Your task to perform on an android device: Show the shopping cart on bestbuy. Add macbook air to the cart on bestbuy Image 0: 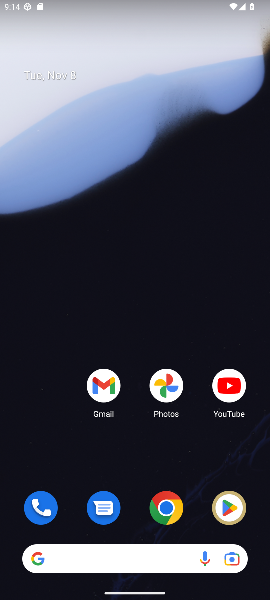
Step 0: click (163, 508)
Your task to perform on an android device: Show the shopping cart on bestbuy. Add macbook air to the cart on bestbuy Image 1: 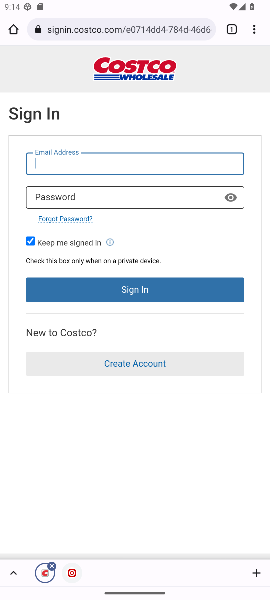
Step 1: click (105, 26)
Your task to perform on an android device: Show the shopping cart on bestbuy. Add macbook air to the cart on bestbuy Image 2: 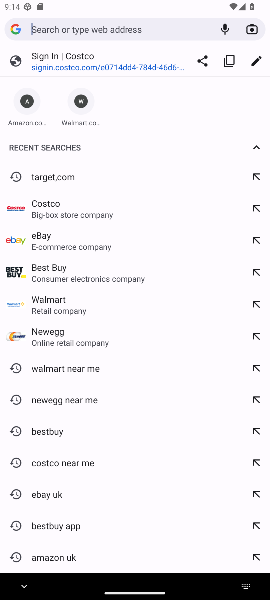
Step 2: type "best buy"
Your task to perform on an android device: Show the shopping cart on bestbuy. Add macbook air to the cart on bestbuy Image 3: 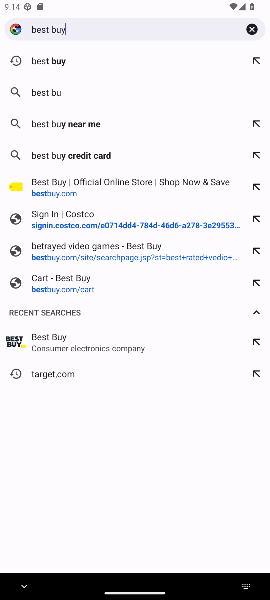
Step 3: type ""
Your task to perform on an android device: Show the shopping cart on bestbuy. Add macbook air to the cart on bestbuy Image 4: 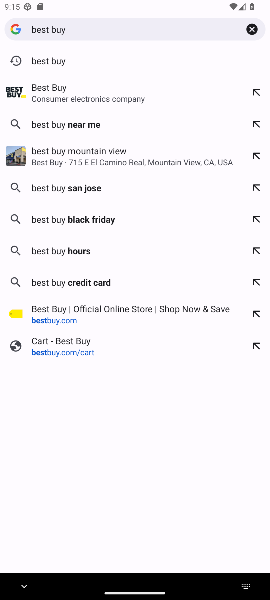
Step 4: click (48, 93)
Your task to perform on an android device: Show the shopping cart on bestbuy. Add macbook air to the cart on bestbuy Image 5: 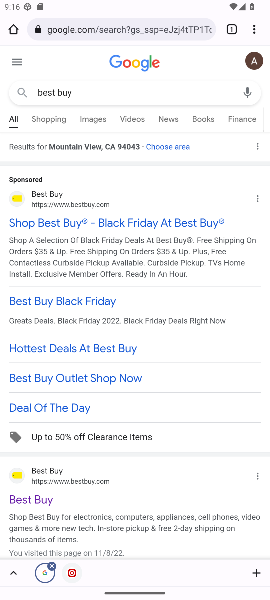
Step 5: click (22, 505)
Your task to perform on an android device: Show the shopping cart on bestbuy. Add macbook air to the cart on bestbuy Image 6: 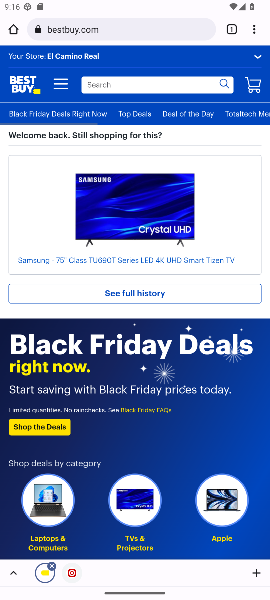
Step 6: click (100, 88)
Your task to perform on an android device: Show the shopping cart on bestbuy. Add macbook air to the cart on bestbuy Image 7: 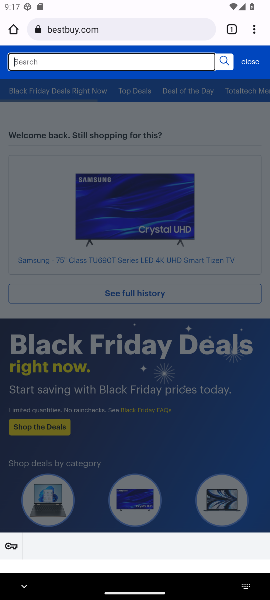
Step 7: type "macbook"
Your task to perform on an android device: Show the shopping cart on bestbuy. Add macbook air to the cart on bestbuy Image 8: 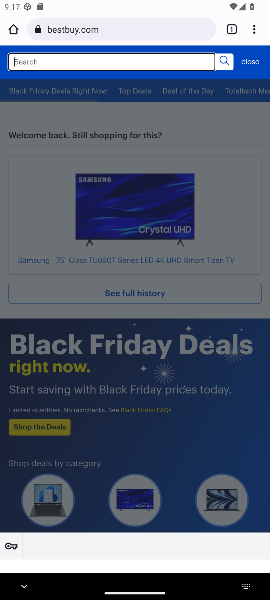
Step 8: type ""
Your task to perform on an android device: Show the shopping cart on bestbuy. Add macbook air to the cart on bestbuy Image 9: 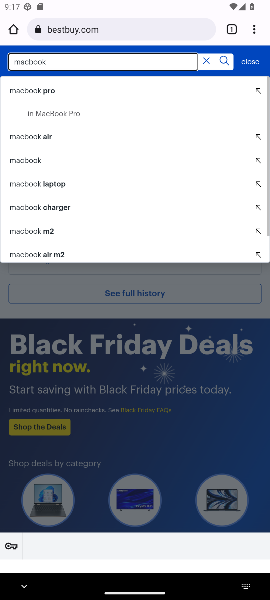
Step 9: click (19, 161)
Your task to perform on an android device: Show the shopping cart on bestbuy. Add macbook air to the cart on bestbuy Image 10: 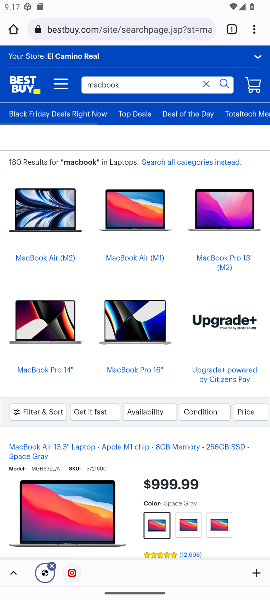
Step 10: click (102, 83)
Your task to perform on an android device: Show the shopping cart on bestbuy. Add macbook air to the cart on bestbuy Image 11: 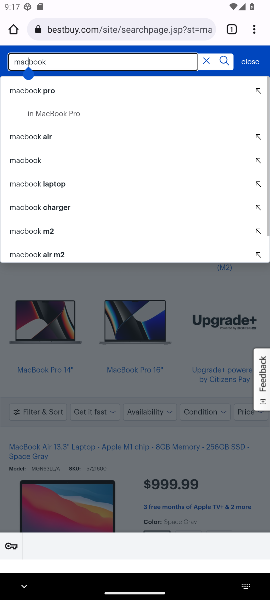
Step 11: click (32, 87)
Your task to perform on an android device: Show the shopping cart on bestbuy. Add macbook air to the cart on bestbuy Image 12: 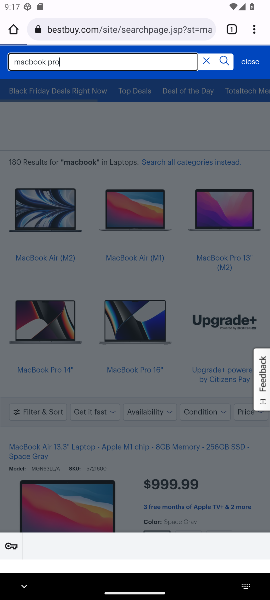
Step 12: drag from (71, 462) to (127, 200)
Your task to perform on an android device: Show the shopping cart on bestbuy. Add macbook air to the cart on bestbuy Image 13: 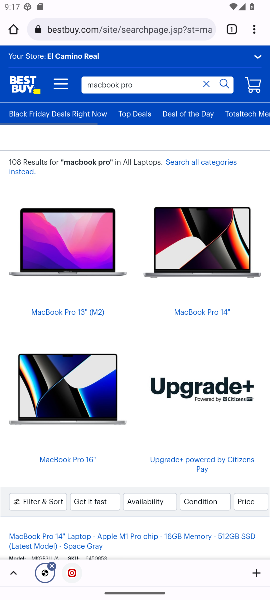
Step 13: click (177, 253)
Your task to perform on an android device: Show the shopping cart on bestbuy. Add macbook air to the cart on bestbuy Image 14: 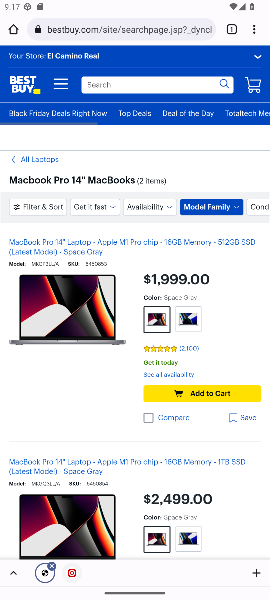
Step 14: click (77, 286)
Your task to perform on an android device: Show the shopping cart on bestbuy. Add macbook air to the cart on bestbuy Image 15: 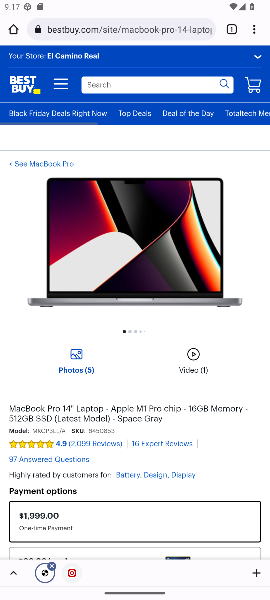
Step 15: drag from (140, 501) to (214, 42)
Your task to perform on an android device: Show the shopping cart on bestbuy. Add macbook air to the cart on bestbuy Image 16: 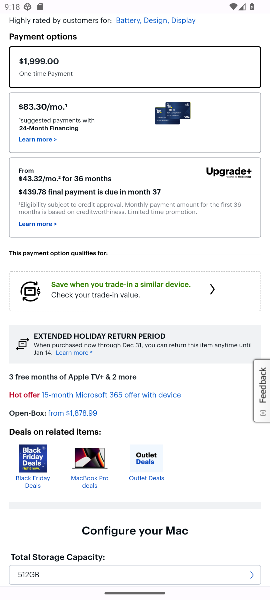
Step 16: drag from (101, 452) to (110, 218)
Your task to perform on an android device: Show the shopping cart on bestbuy. Add macbook air to the cart on bestbuy Image 17: 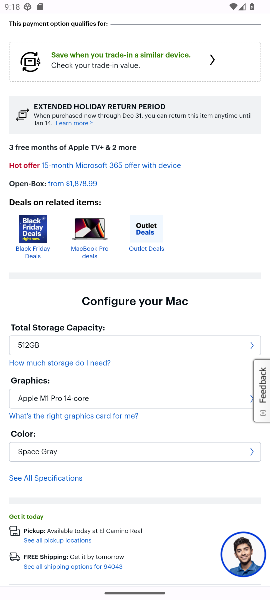
Step 17: drag from (152, 441) to (152, 219)
Your task to perform on an android device: Show the shopping cart on bestbuy. Add macbook air to the cart on bestbuy Image 18: 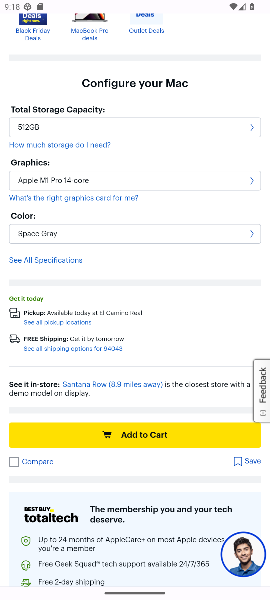
Step 18: click (132, 428)
Your task to perform on an android device: Show the shopping cart on bestbuy. Add macbook air to the cart on bestbuy Image 19: 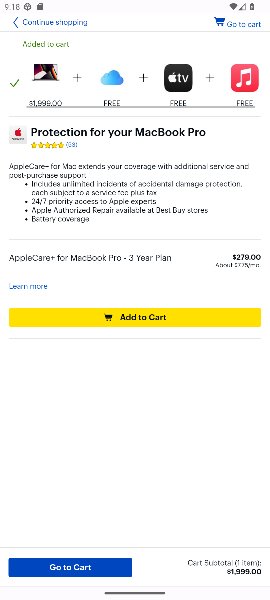
Step 19: click (87, 569)
Your task to perform on an android device: Show the shopping cart on bestbuy. Add macbook air to the cart on bestbuy Image 20: 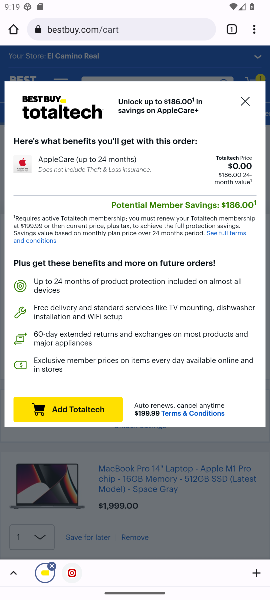
Step 20: click (242, 99)
Your task to perform on an android device: Show the shopping cart on bestbuy. Add macbook air to the cart on bestbuy Image 21: 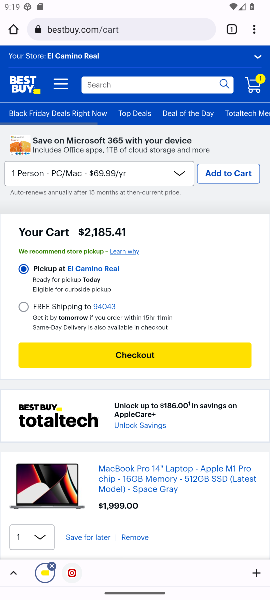
Step 21: click (146, 90)
Your task to perform on an android device: Show the shopping cart on bestbuy. Add macbook air to the cart on bestbuy Image 22: 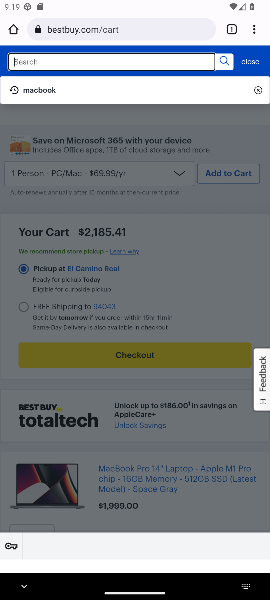
Step 22: click (122, 477)
Your task to perform on an android device: Show the shopping cart on bestbuy. Add macbook air to the cart on bestbuy Image 23: 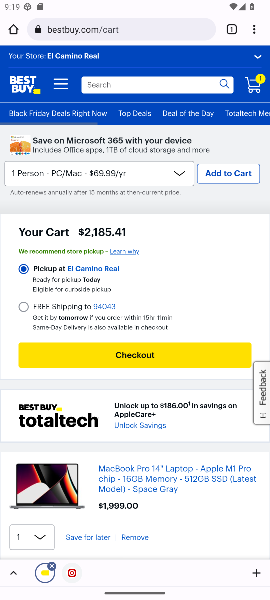
Step 23: task complete